Your task to perform on an android device: turn off wifi Image 0: 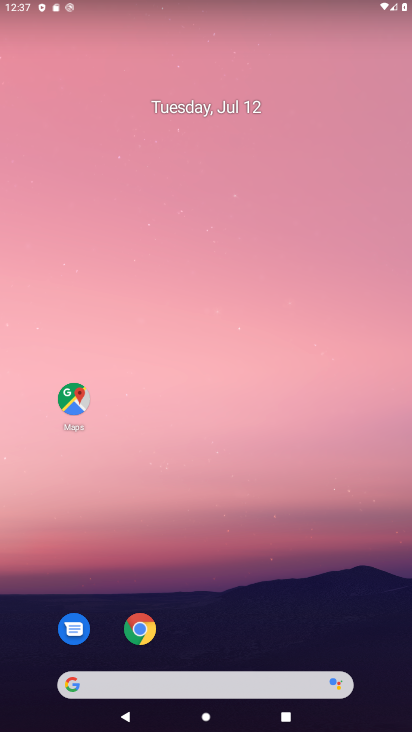
Step 0: drag from (24, 699) to (184, 127)
Your task to perform on an android device: turn off wifi Image 1: 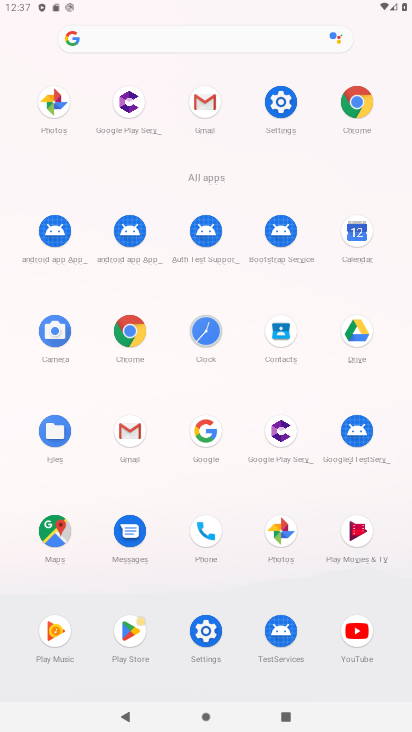
Step 1: click (205, 637)
Your task to perform on an android device: turn off wifi Image 2: 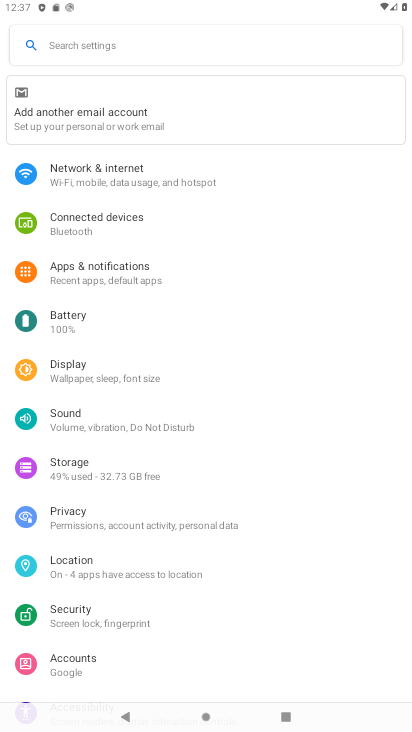
Step 2: click (136, 178)
Your task to perform on an android device: turn off wifi Image 3: 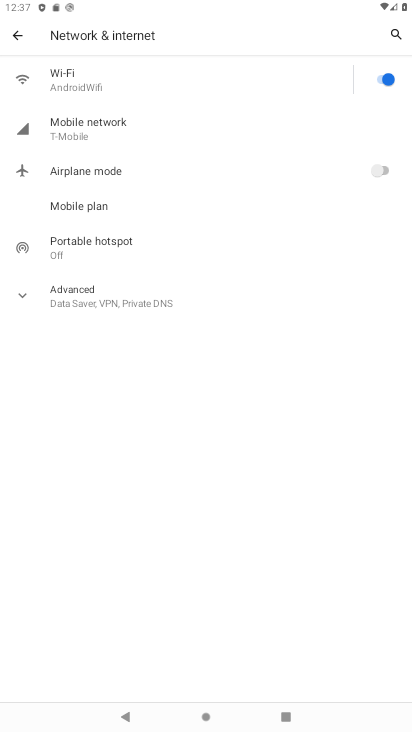
Step 3: click (390, 86)
Your task to perform on an android device: turn off wifi Image 4: 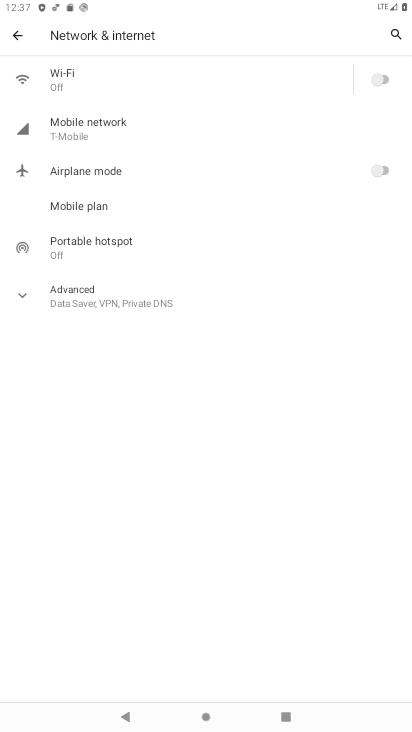
Step 4: task complete